Your task to perform on an android device: Do I have any events this weekend? Image 0: 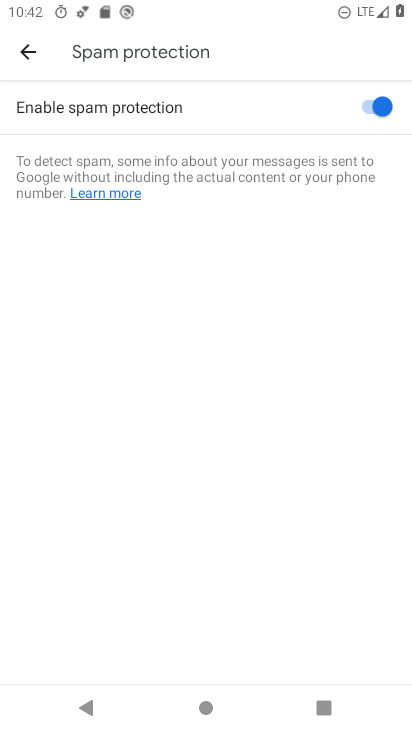
Step 0: drag from (218, 612) to (272, 395)
Your task to perform on an android device: Do I have any events this weekend? Image 1: 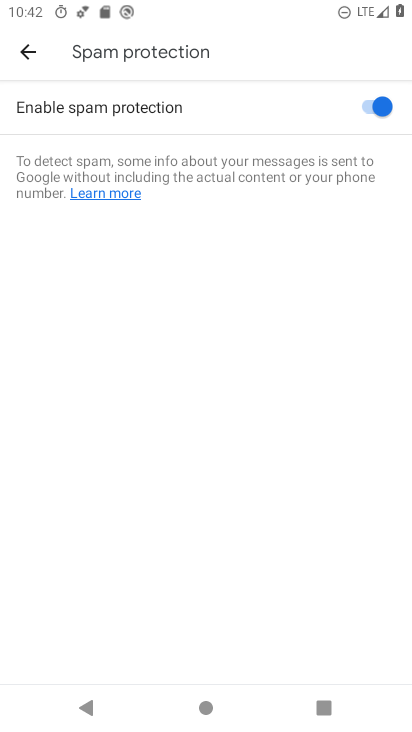
Step 1: press home button
Your task to perform on an android device: Do I have any events this weekend? Image 2: 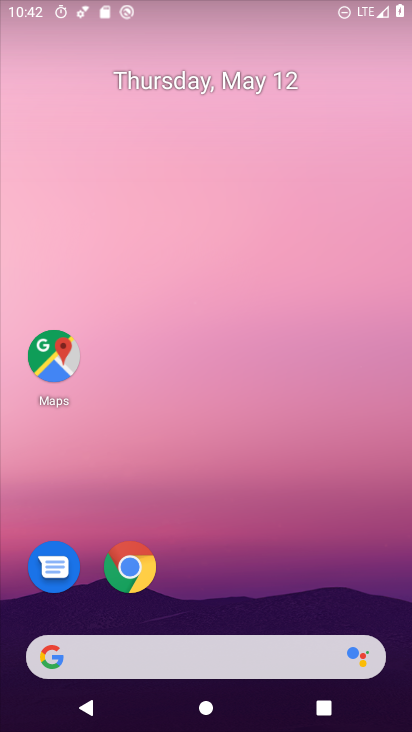
Step 2: drag from (214, 587) to (209, 120)
Your task to perform on an android device: Do I have any events this weekend? Image 3: 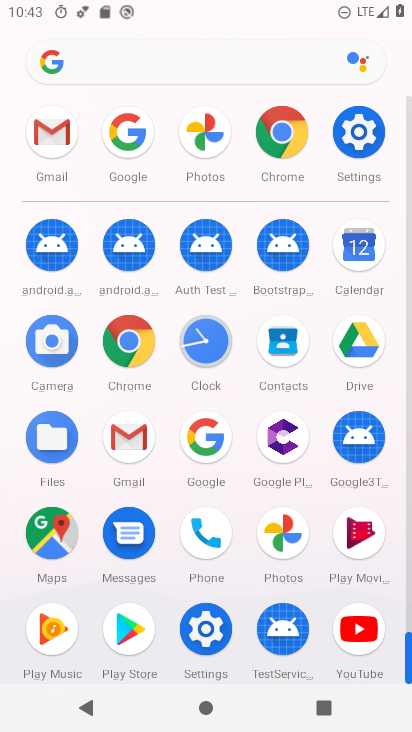
Step 3: click (360, 280)
Your task to perform on an android device: Do I have any events this weekend? Image 4: 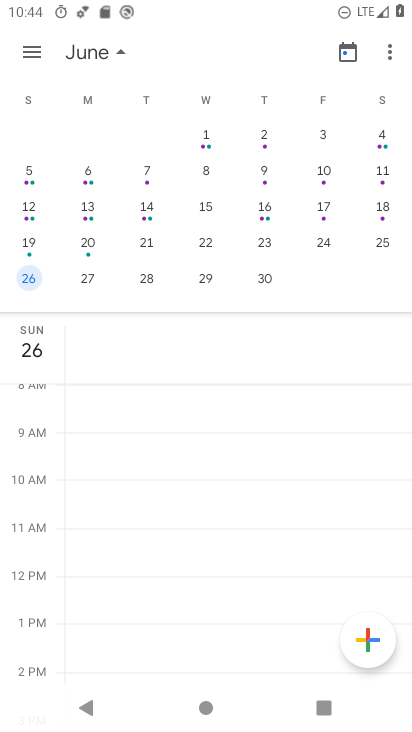
Step 4: drag from (114, 179) to (393, 254)
Your task to perform on an android device: Do I have any events this weekend? Image 5: 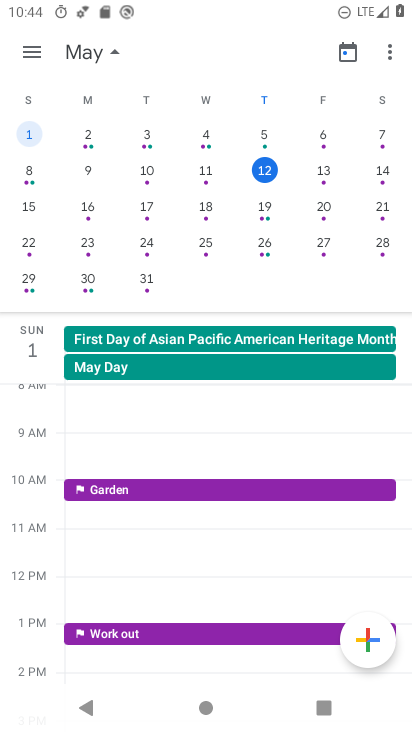
Step 5: click (377, 177)
Your task to perform on an android device: Do I have any events this weekend? Image 6: 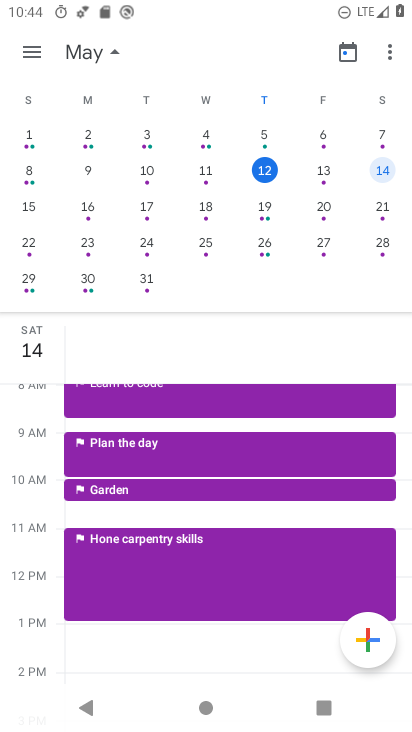
Step 6: task complete